Your task to perform on an android device: What's the weather? Image 0: 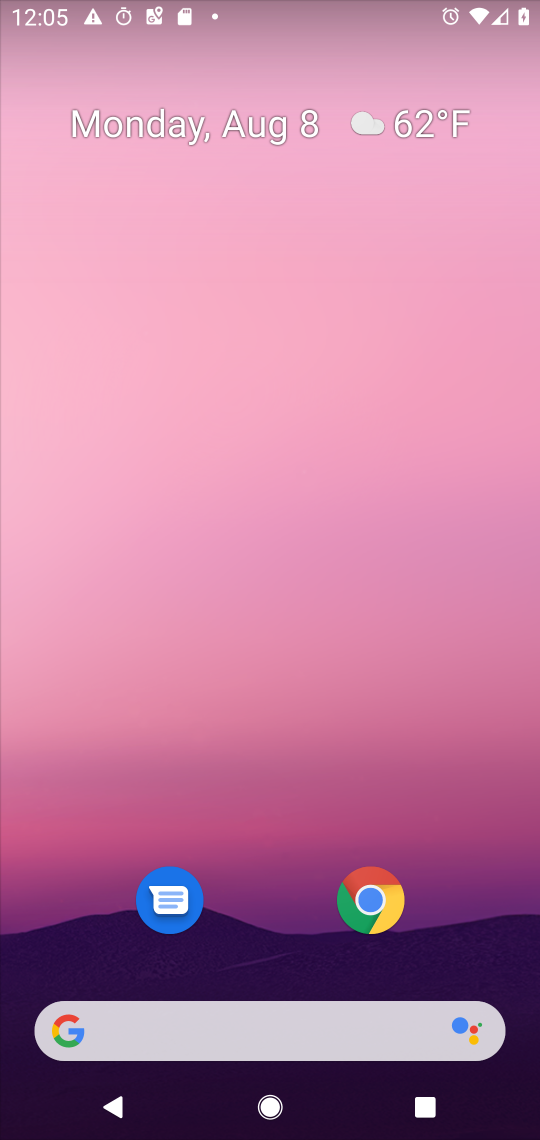
Step 0: press home button
Your task to perform on an android device: What's the weather? Image 1: 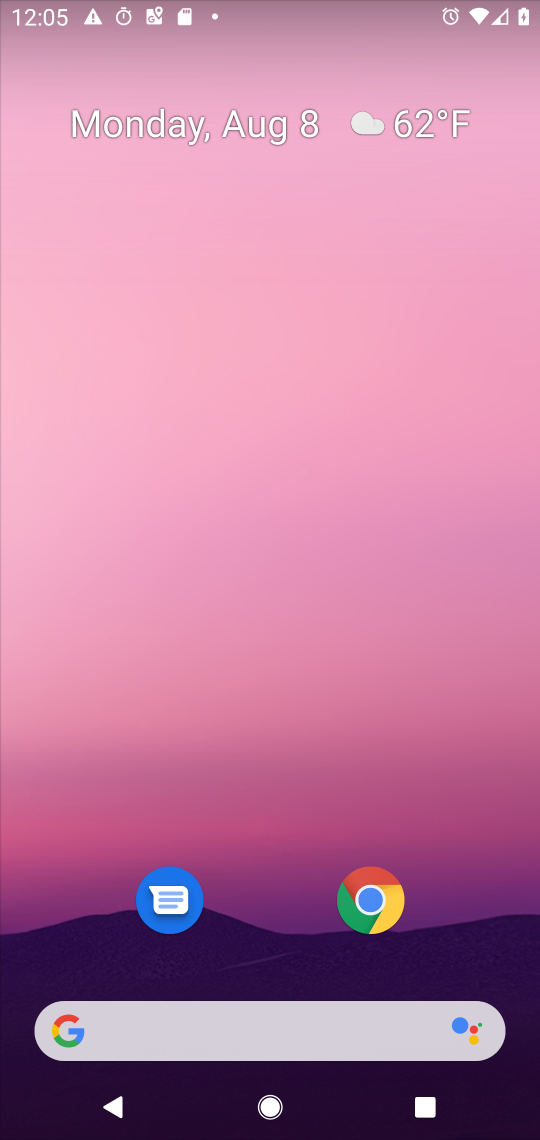
Step 1: click (412, 120)
Your task to perform on an android device: What's the weather? Image 2: 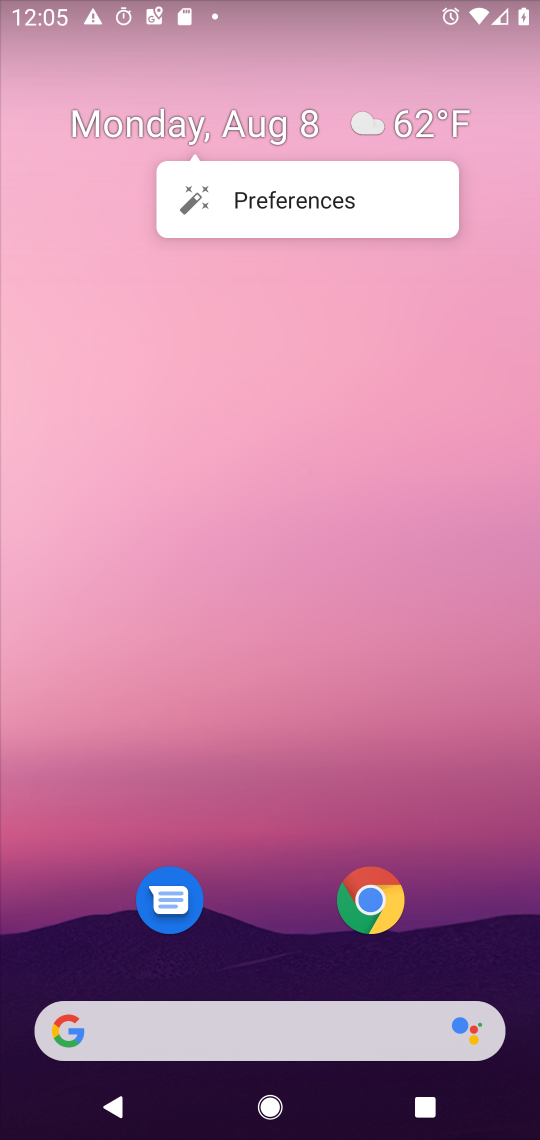
Step 2: click (421, 119)
Your task to perform on an android device: What's the weather? Image 3: 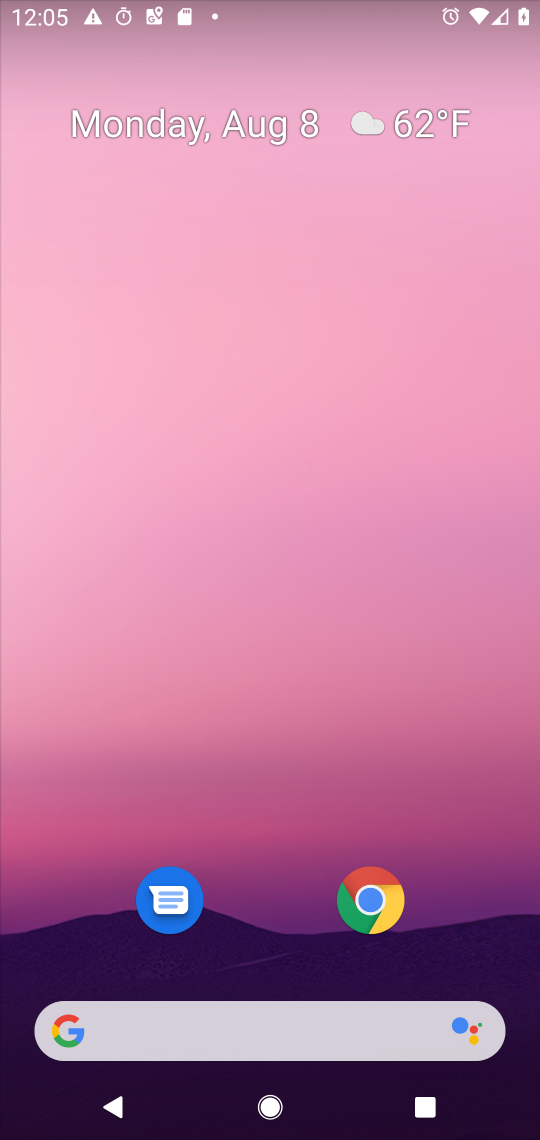
Step 3: click (414, 122)
Your task to perform on an android device: What's the weather? Image 4: 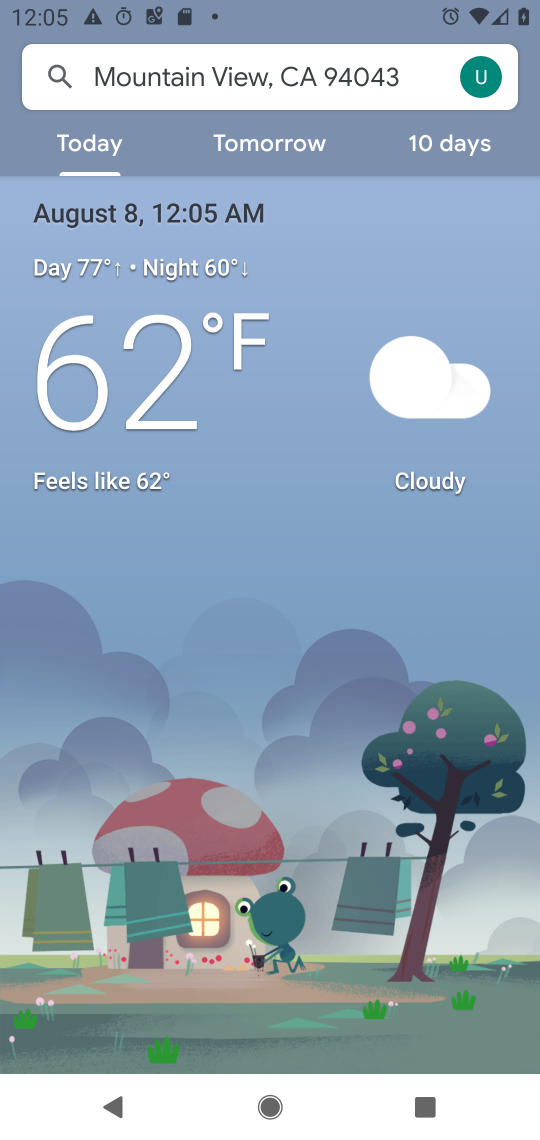
Step 4: task complete